Your task to perform on an android device: turn on improve location accuracy Image 0: 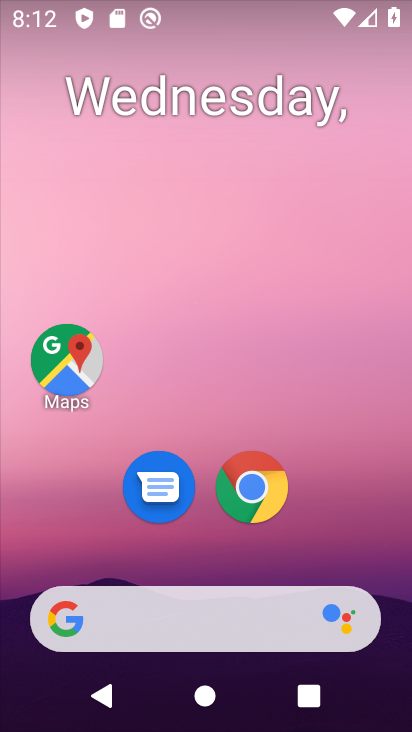
Step 0: drag from (243, 671) to (233, 239)
Your task to perform on an android device: turn on improve location accuracy Image 1: 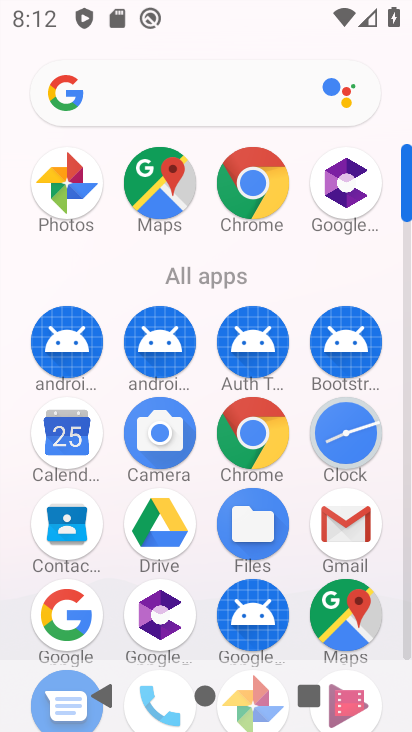
Step 1: drag from (298, 596) to (309, 285)
Your task to perform on an android device: turn on improve location accuracy Image 2: 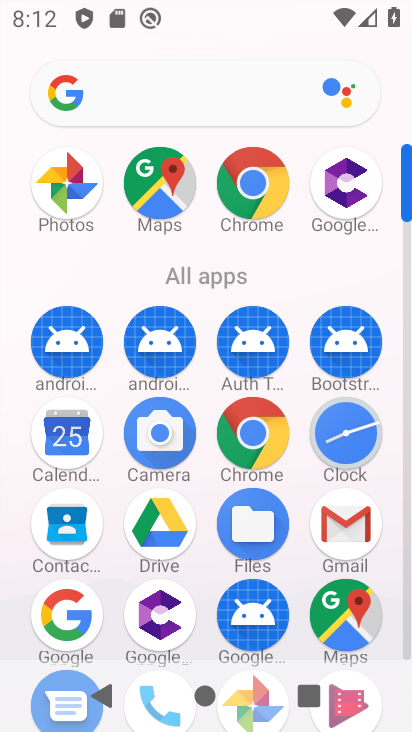
Step 2: drag from (284, 511) to (284, 298)
Your task to perform on an android device: turn on improve location accuracy Image 3: 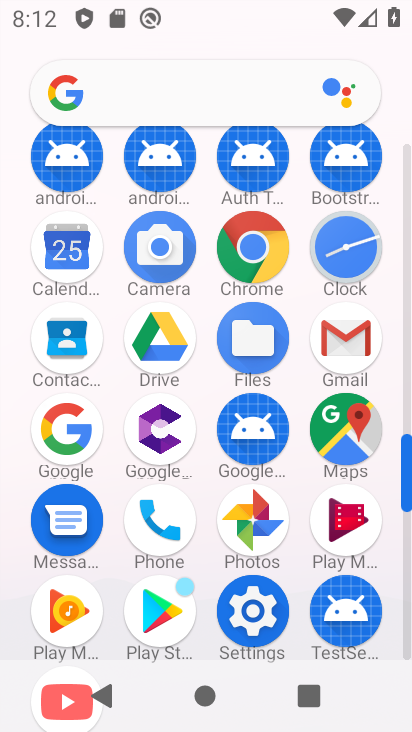
Step 3: click (237, 619)
Your task to perform on an android device: turn on improve location accuracy Image 4: 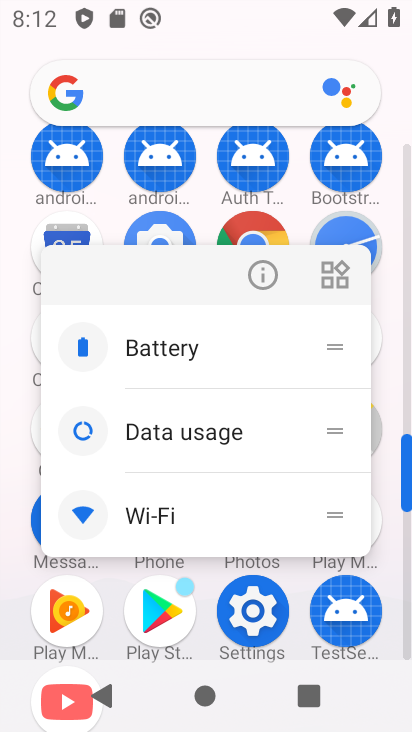
Step 4: click (263, 600)
Your task to perform on an android device: turn on improve location accuracy Image 5: 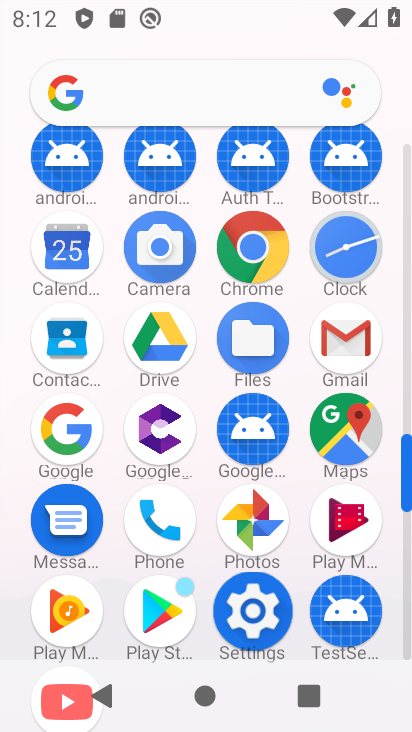
Step 5: click (262, 603)
Your task to perform on an android device: turn on improve location accuracy Image 6: 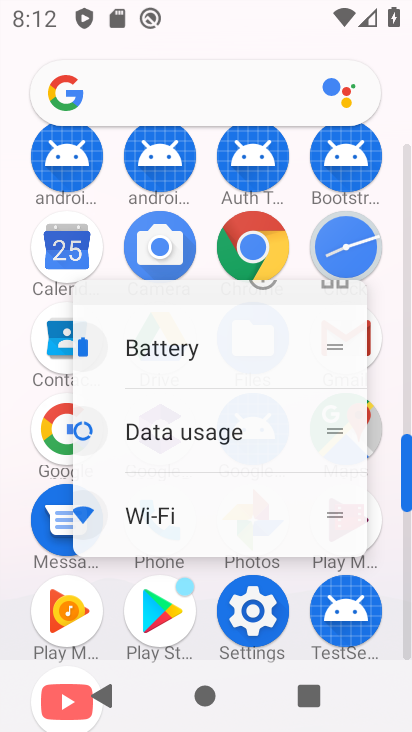
Step 6: click (262, 603)
Your task to perform on an android device: turn on improve location accuracy Image 7: 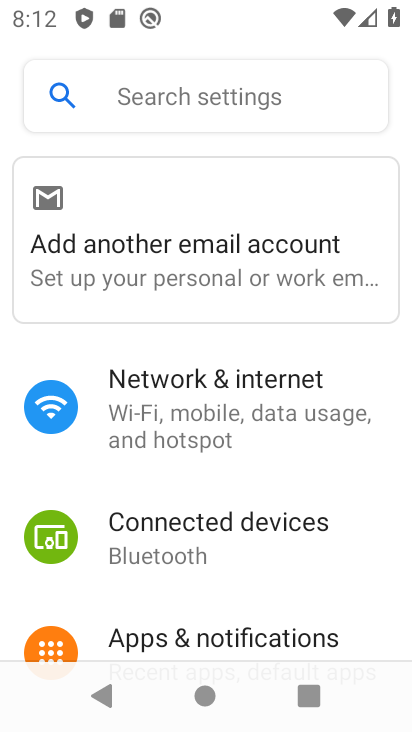
Step 7: drag from (264, 547) to (264, 245)
Your task to perform on an android device: turn on improve location accuracy Image 8: 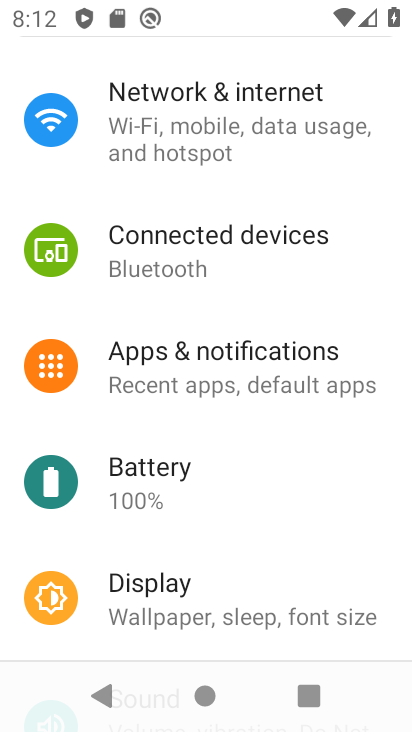
Step 8: drag from (259, 415) to (265, 160)
Your task to perform on an android device: turn on improve location accuracy Image 9: 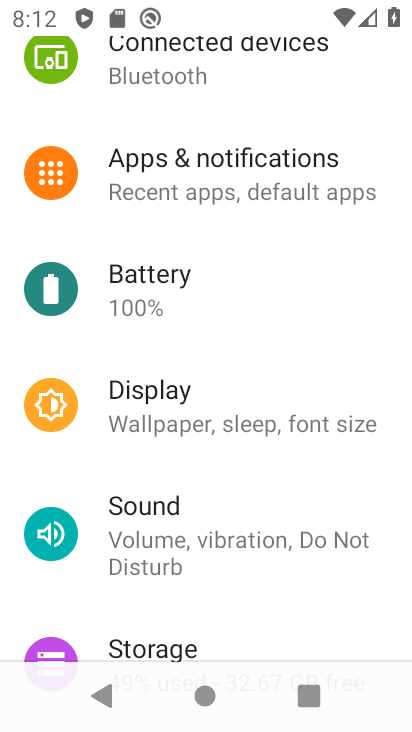
Step 9: drag from (253, 375) to (274, 138)
Your task to perform on an android device: turn on improve location accuracy Image 10: 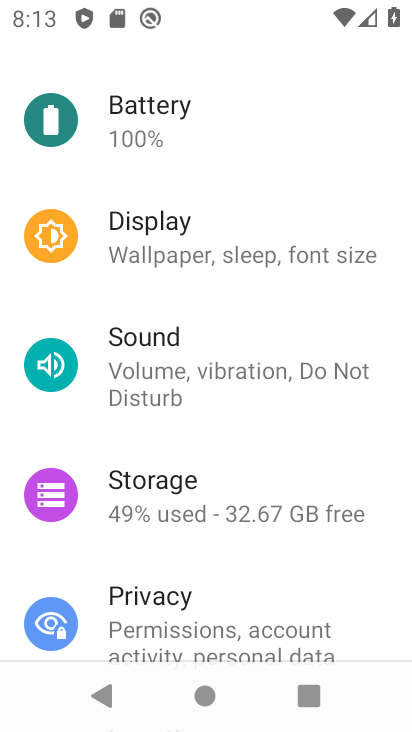
Step 10: drag from (191, 541) to (163, 101)
Your task to perform on an android device: turn on improve location accuracy Image 11: 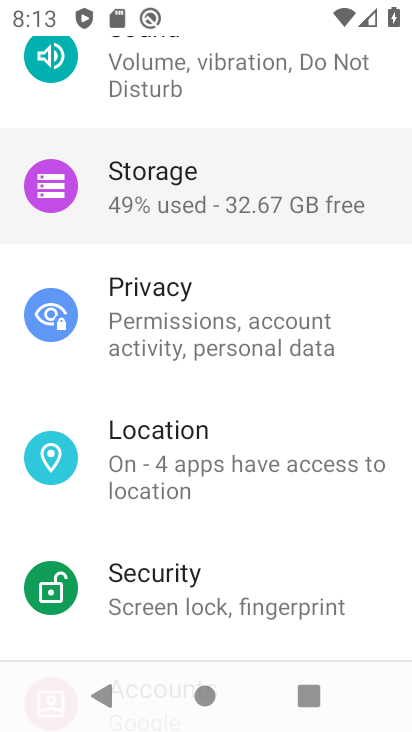
Step 11: drag from (184, 449) to (194, 150)
Your task to perform on an android device: turn on improve location accuracy Image 12: 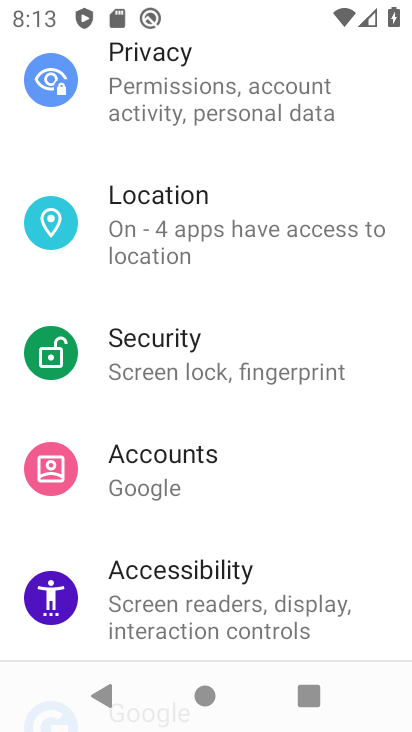
Step 12: drag from (207, 487) to (209, 191)
Your task to perform on an android device: turn on improve location accuracy Image 13: 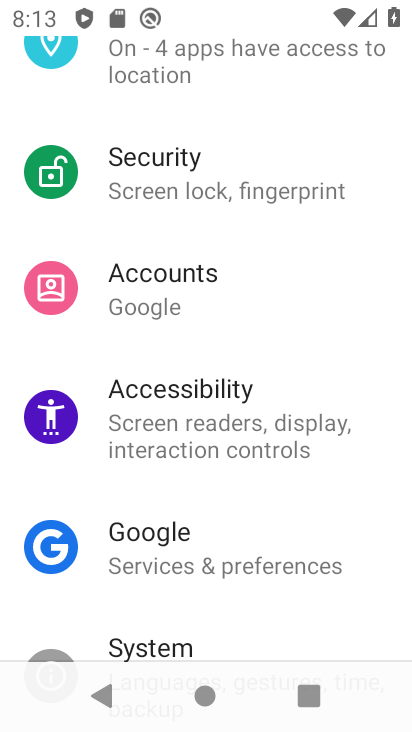
Step 13: click (159, 473)
Your task to perform on an android device: turn on improve location accuracy Image 14: 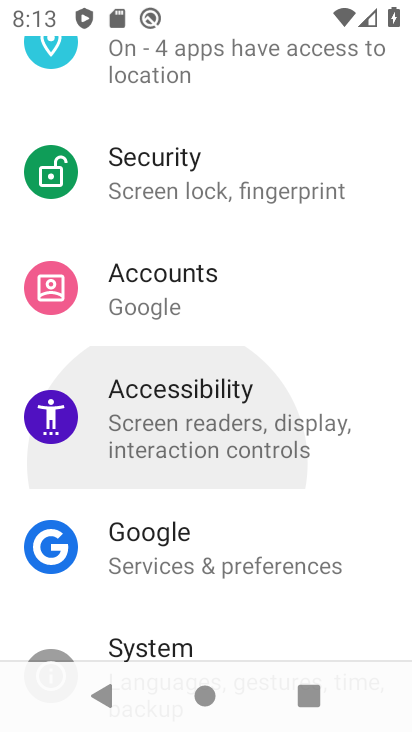
Step 14: drag from (165, 227) to (194, 506)
Your task to perform on an android device: turn on improve location accuracy Image 15: 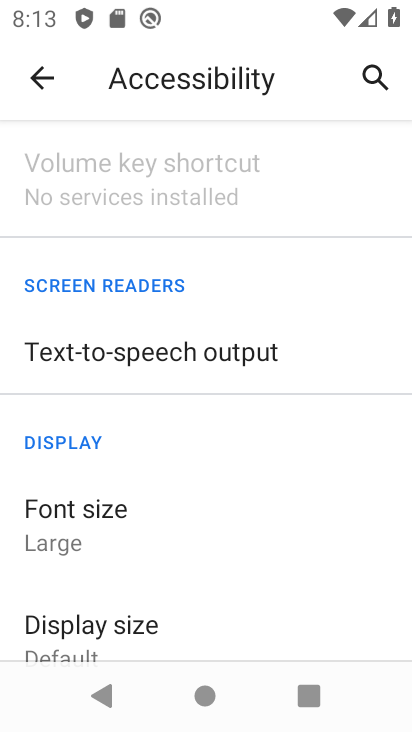
Step 15: click (40, 73)
Your task to perform on an android device: turn on improve location accuracy Image 16: 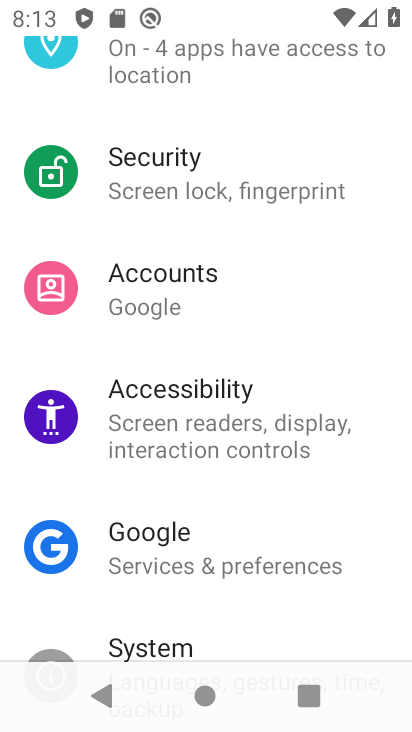
Step 16: drag from (220, 372) to (224, 490)
Your task to perform on an android device: turn on improve location accuracy Image 17: 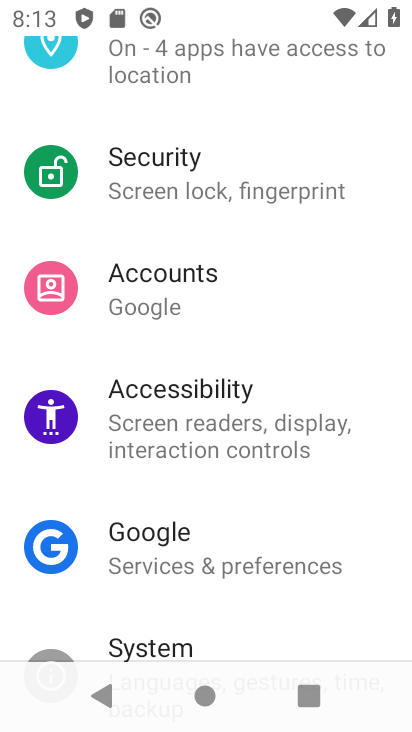
Step 17: click (190, 65)
Your task to perform on an android device: turn on improve location accuracy Image 18: 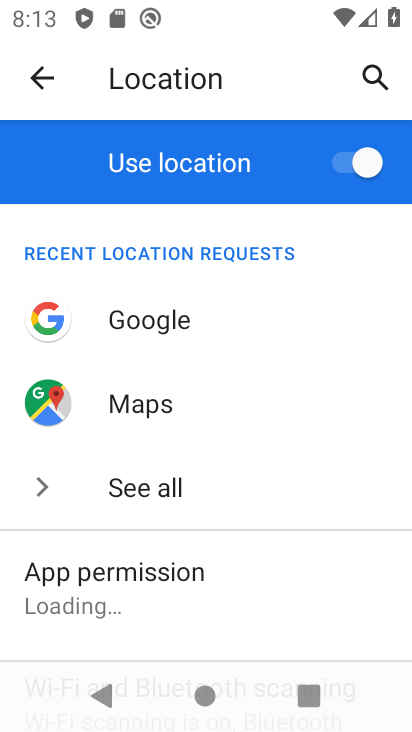
Step 18: task complete